Your task to perform on an android device: Open privacy settings Image 0: 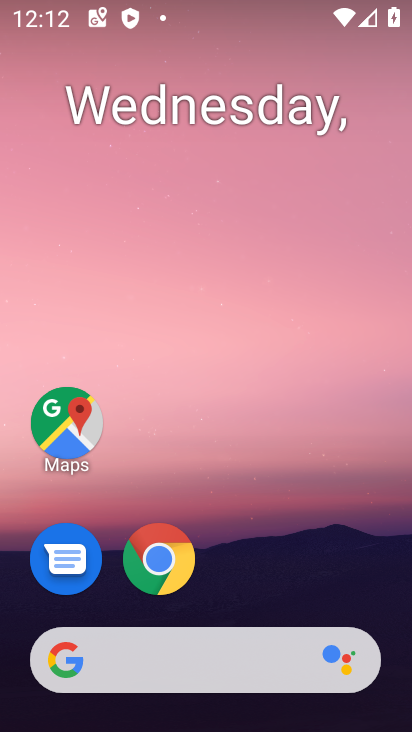
Step 0: drag from (233, 572) to (271, 11)
Your task to perform on an android device: Open privacy settings Image 1: 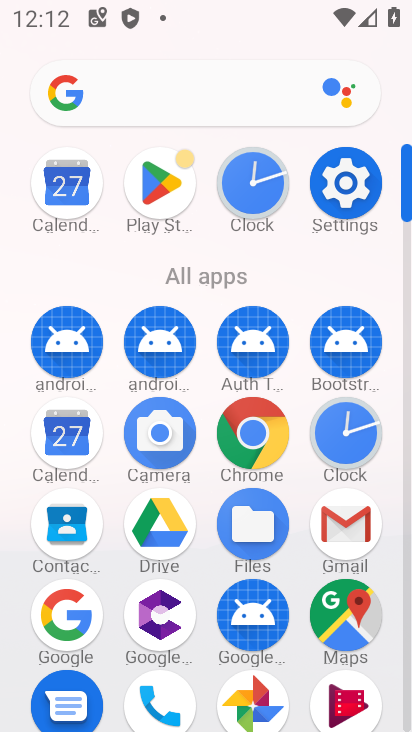
Step 1: click (341, 181)
Your task to perform on an android device: Open privacy settings Image 2: 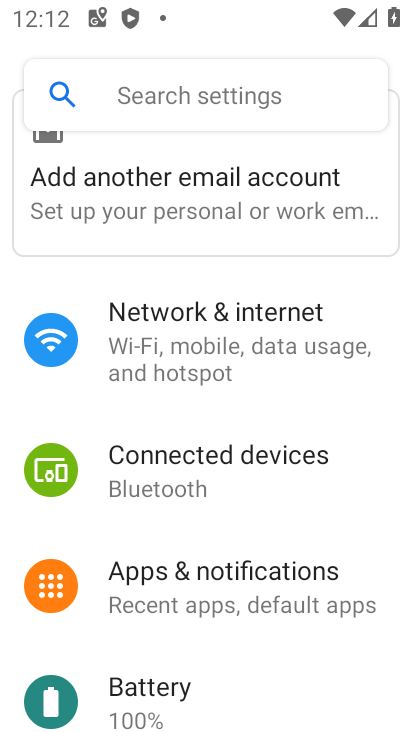
Step 2: drag from (160, 629) to (220, 271)
Your task to perform on an android device: Open privacy settings Image 3: 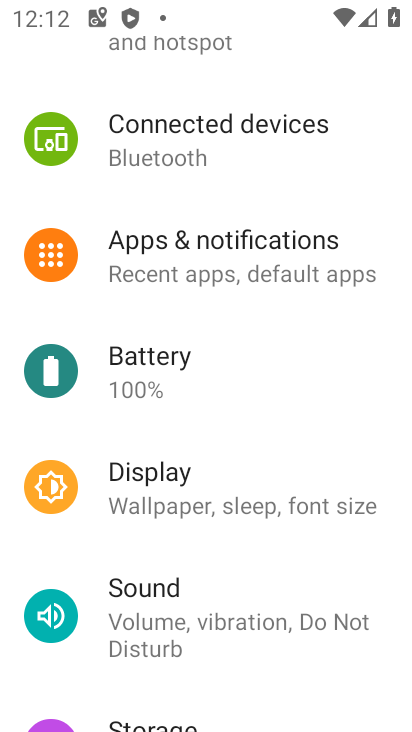
Step 3: drag from (163, 644) to (234, 144)
Your task to perform on an android device: Open privacy settings Image 4: 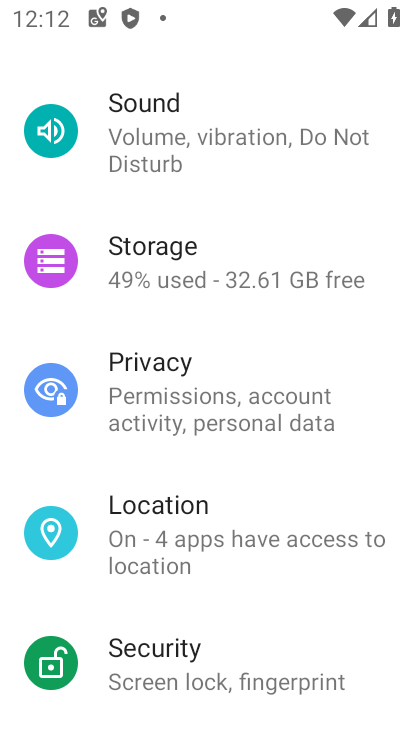
Step 4: click (179, 377)
Your task to perform on an android device: Open privacy settings Image 5: 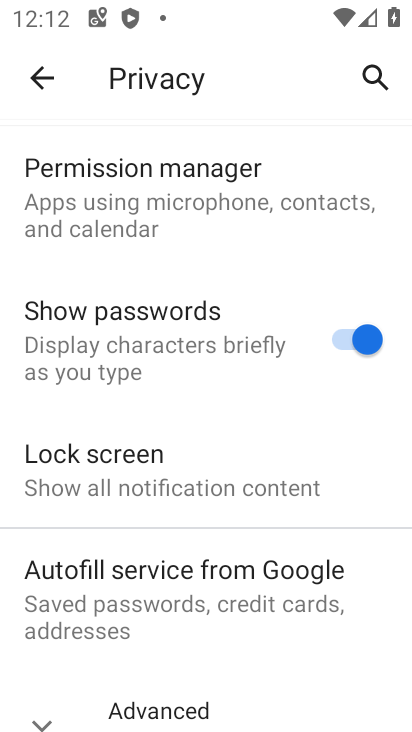
Step 5: task complete